Your task to perform on an android device: Open Google Maps Image 0: 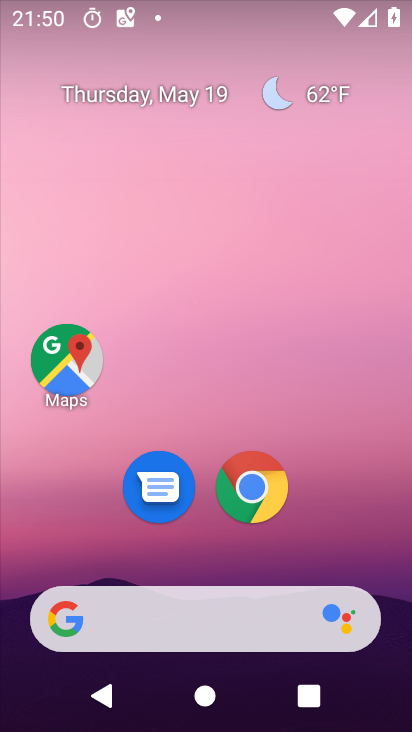
Step 0: drag from (166, 561) to (147, 265)
Your task to perform on an android device: Open Google Maps Image 1: 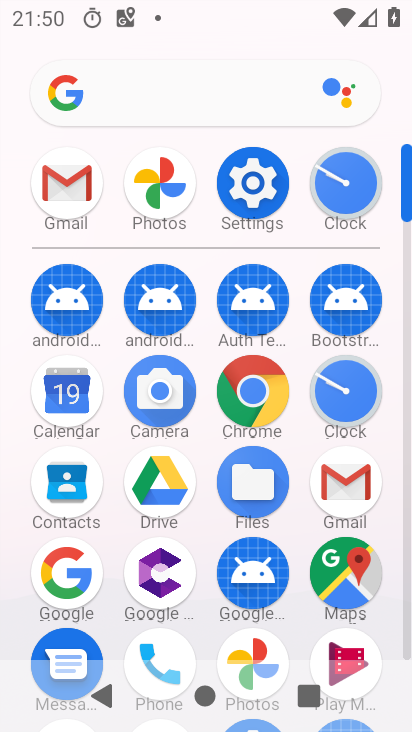
Step 1: click (74, 590)
Your task to perform on an android device: Open Google Maps Image 2: 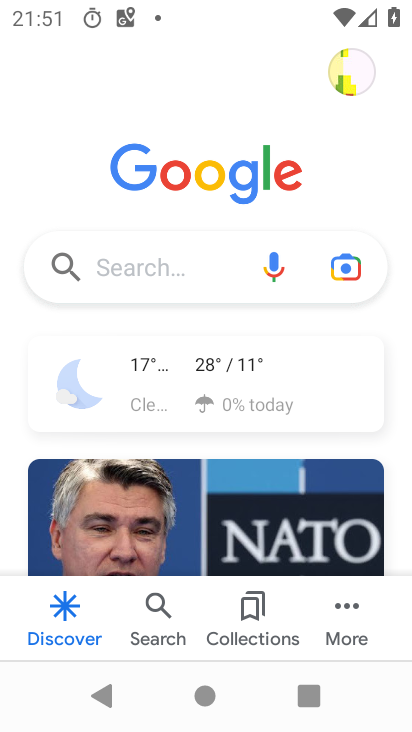
Step 2: press home button
Your task to perform on an android device: Open Google Maps Image 3: 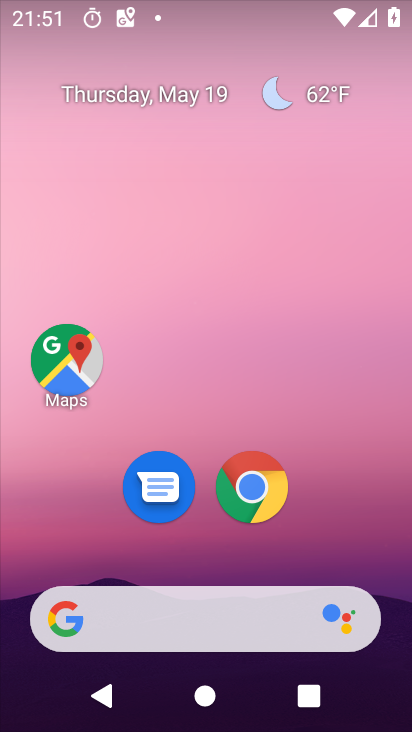
Step 3: click (59, 352)
Your task to perform on an android device: Open Google Maps Image 4: 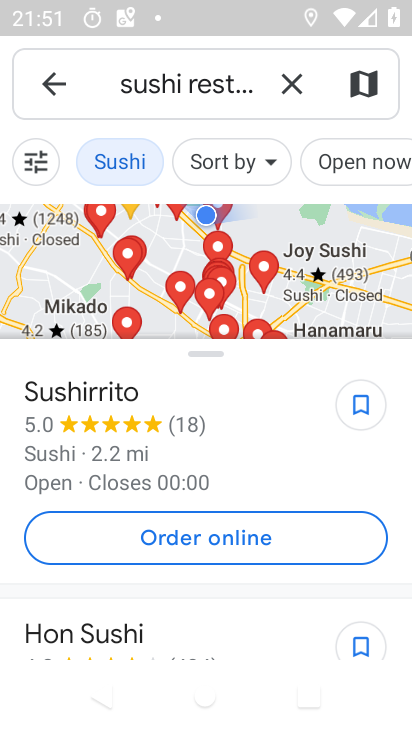
Step 4: task complete